Your task to perform on an android device: Clear all items from cart on newegg. Image 0: 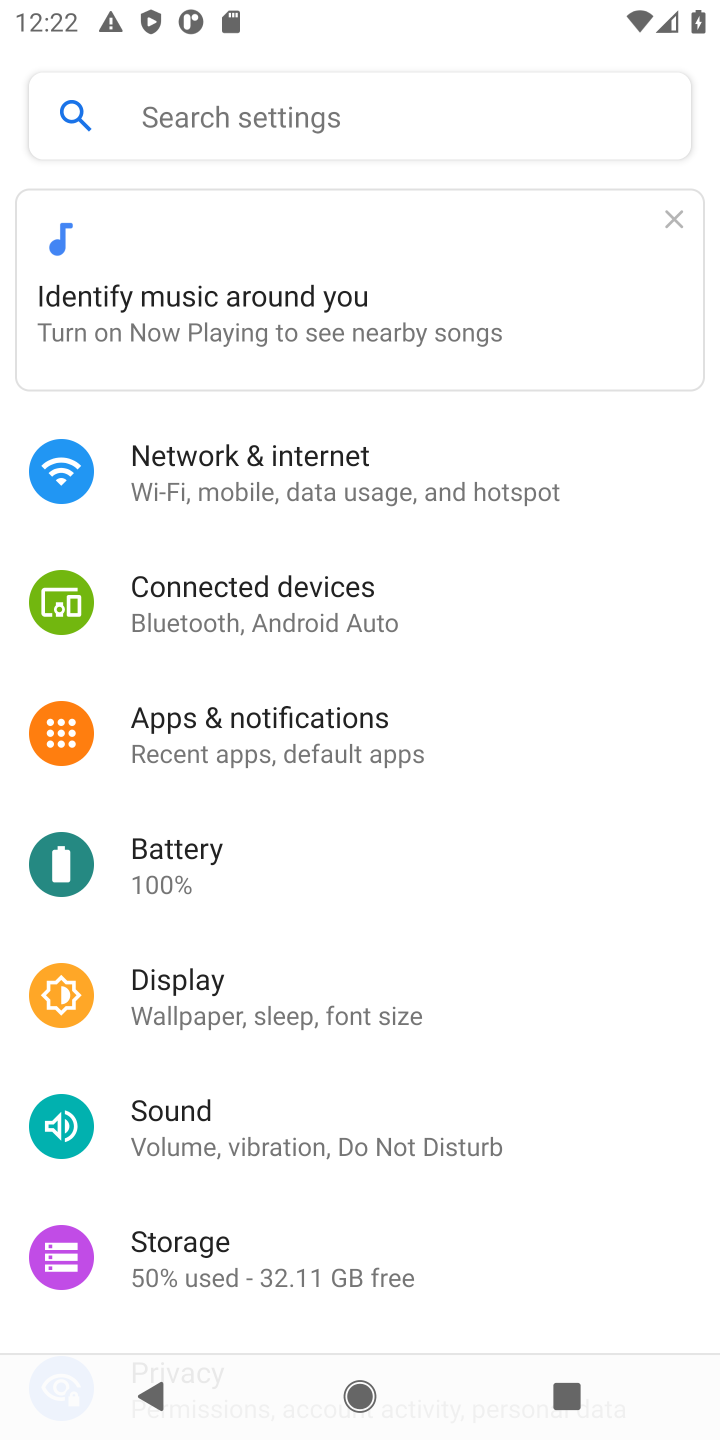
Step 0: press home button
Your task to perform on an android device: Clear all items from cart on newegg. Image 1: 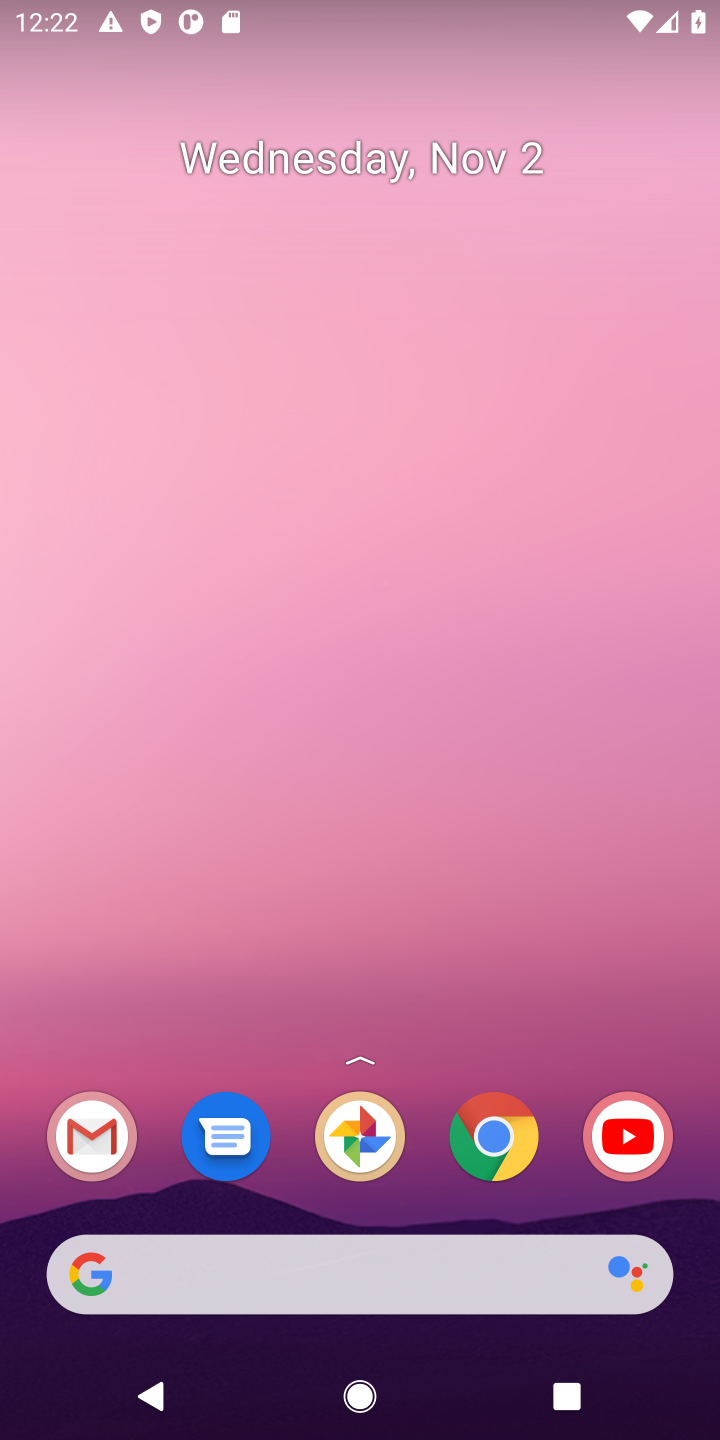
Step 1: click (491, 1149)
Your task to perform on an android device: Clear all items from cart on newegg. Image 2: 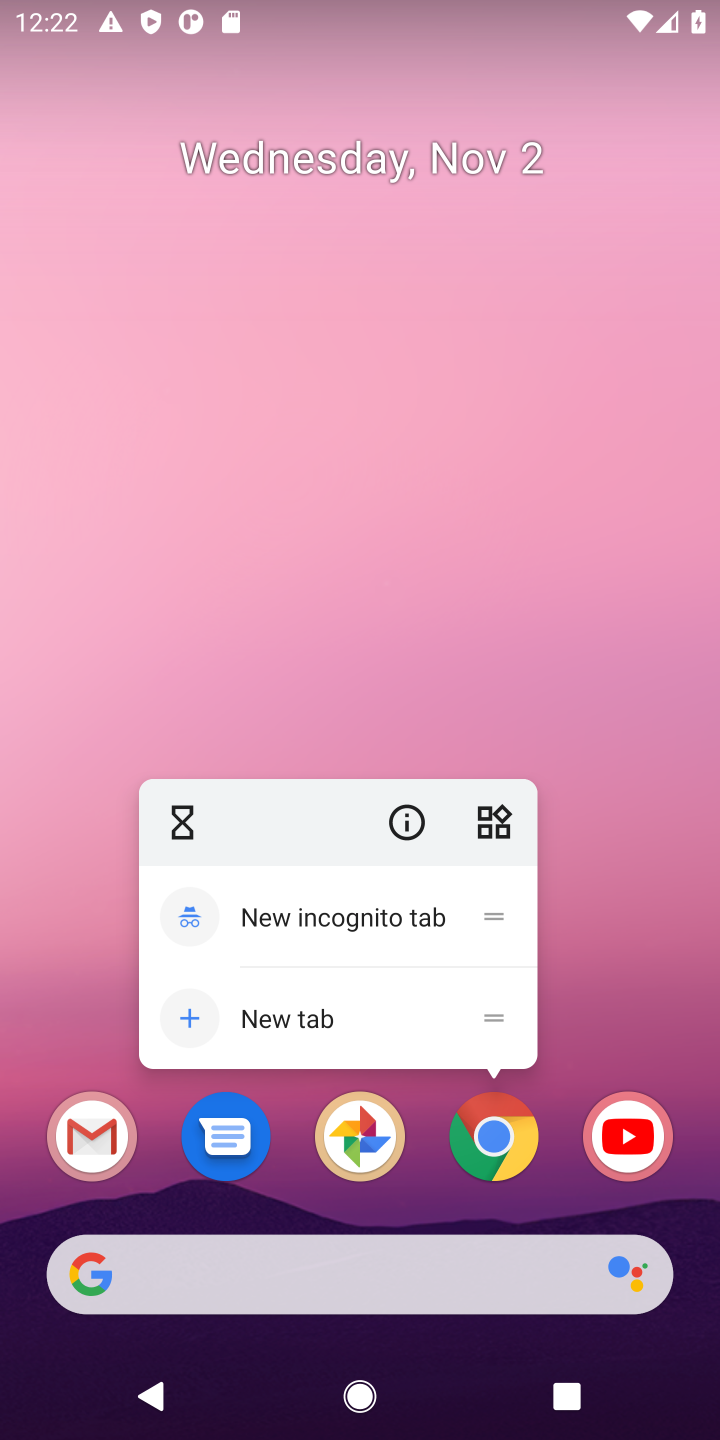
Step 2: click (493, 1137)
Your task to perform on an android device: Clear all items from cart on newegg. Image 3: 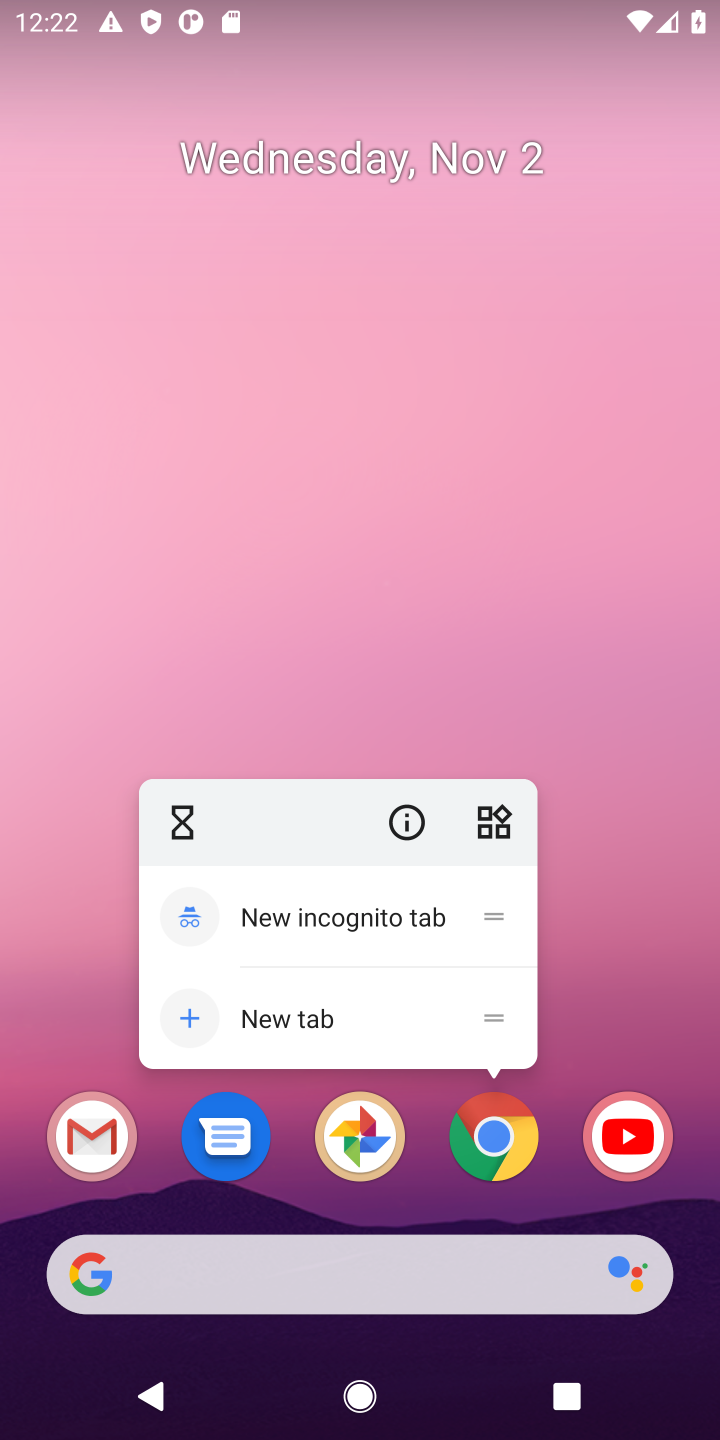
Step 3: click (502, 1155)
Your task to perform on an android device: Clear all items from cart on newegg. Image 4: 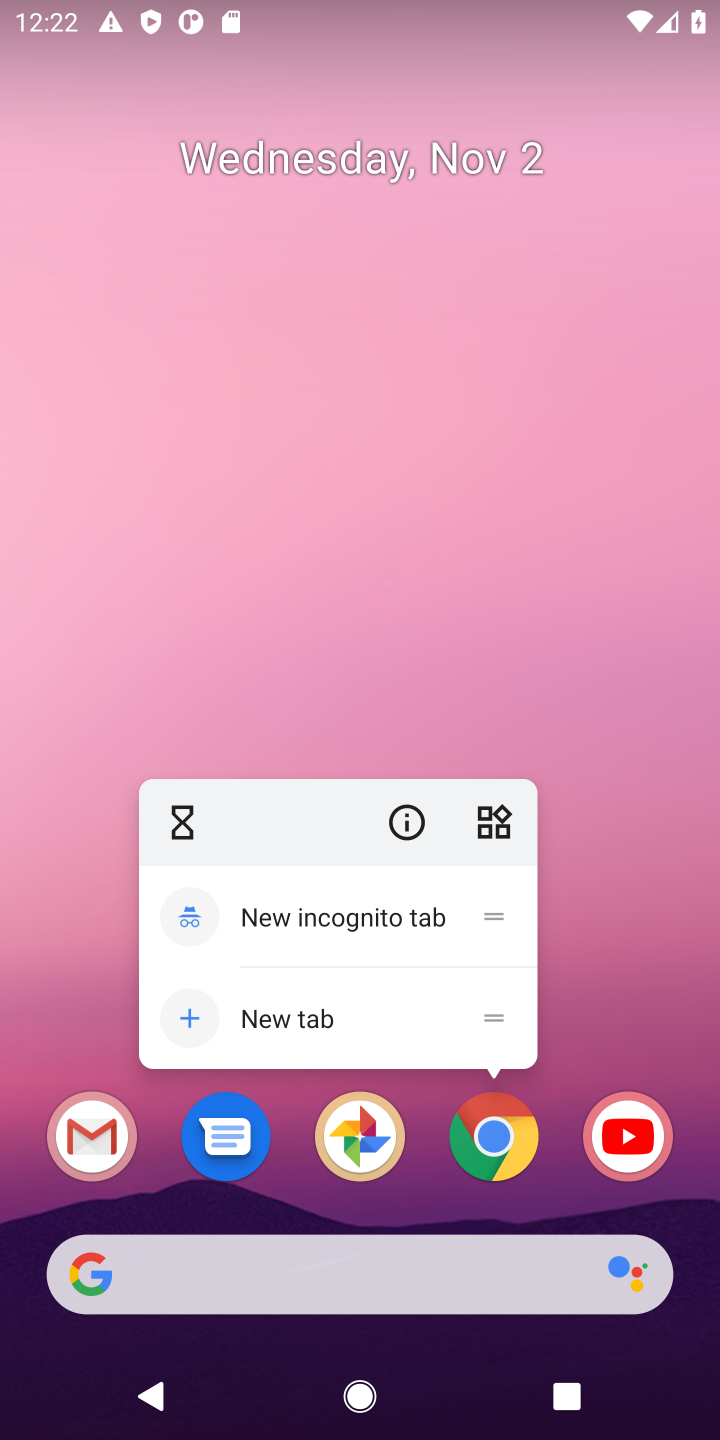
Step 4: click (502, 1163)
Your task to perform on an android device: Clear all items from cart on newegg. Image 5: 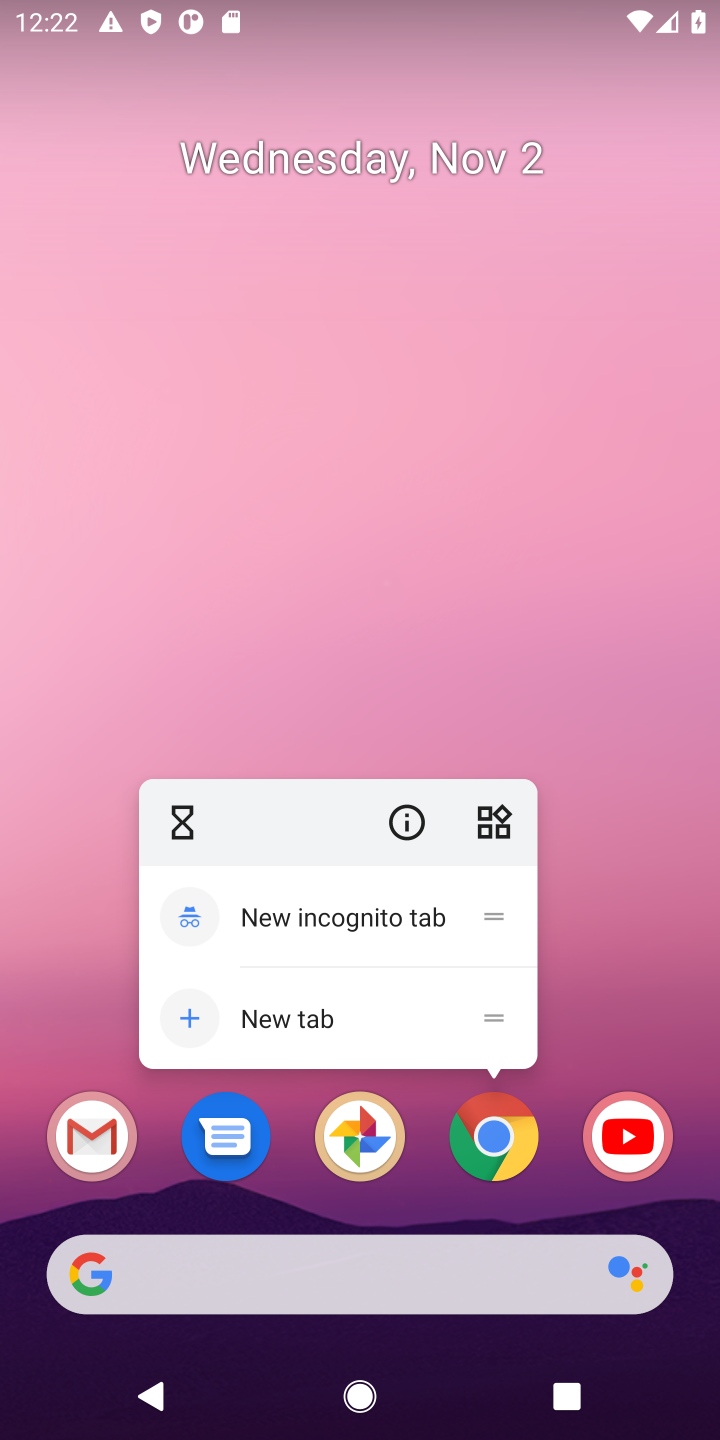
Step 5: click (489, 1134)
Your task to perform on an android device: Clear all items from cart on newegg. Image 6: 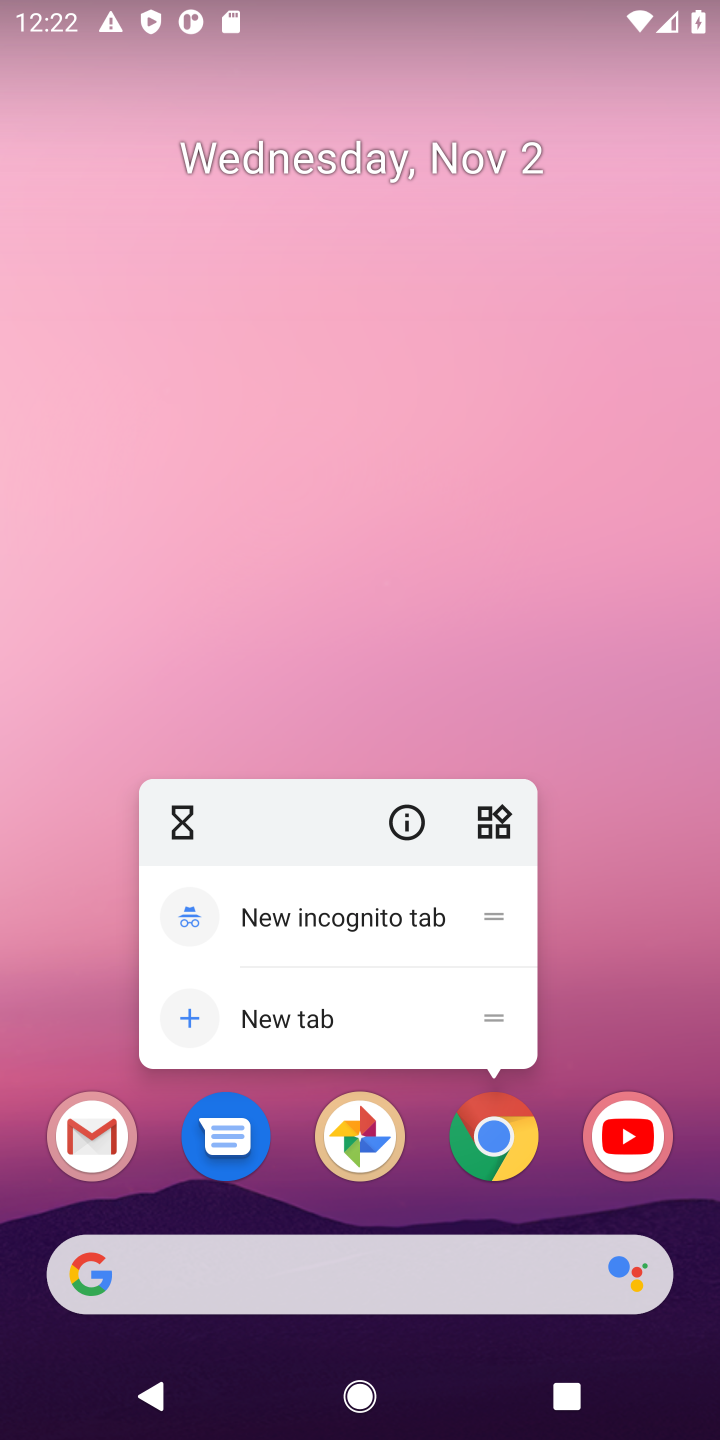
Step 6: click (491, 1141)
Your task to perform on an android device: Clear all items from cart on newegg. Image 7: 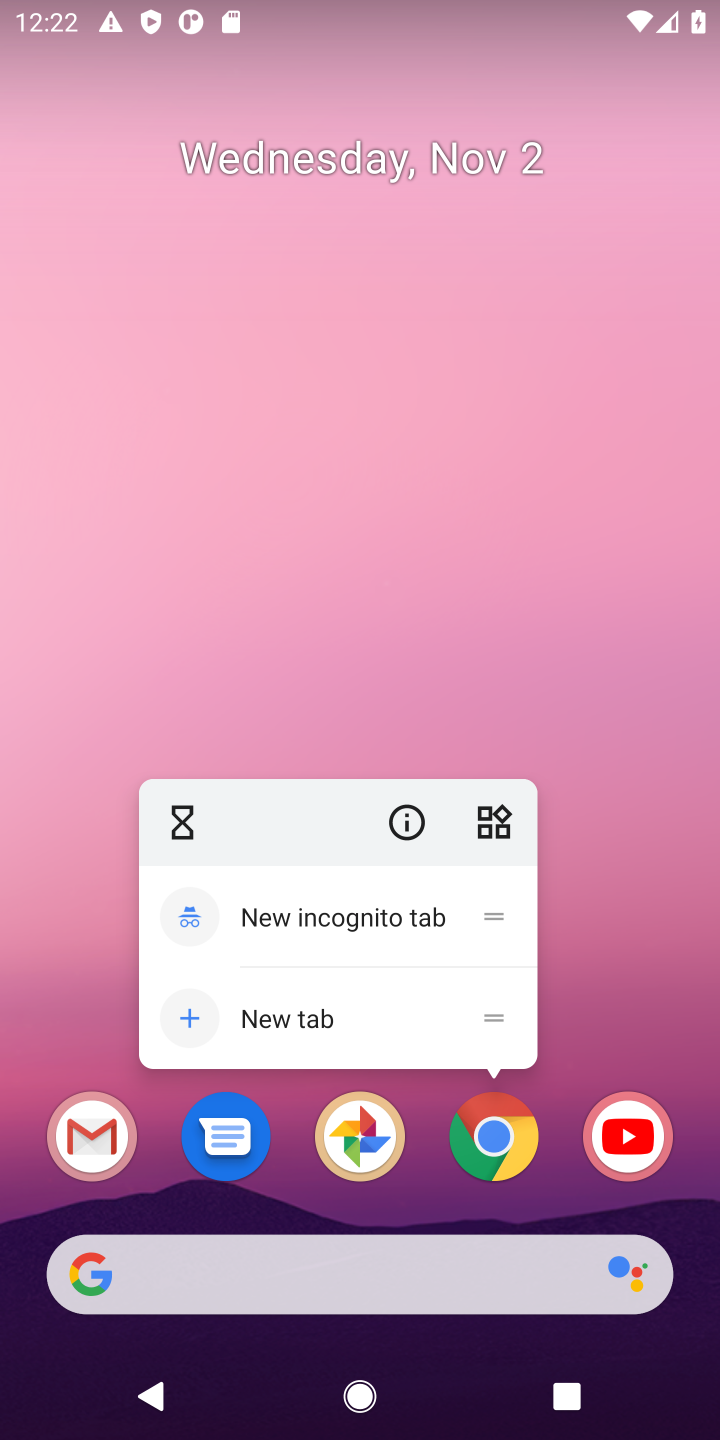
Step 7: click (515, 1149)
Your task to perform on an android device: Clear all items from cart on newegg. Image 8: 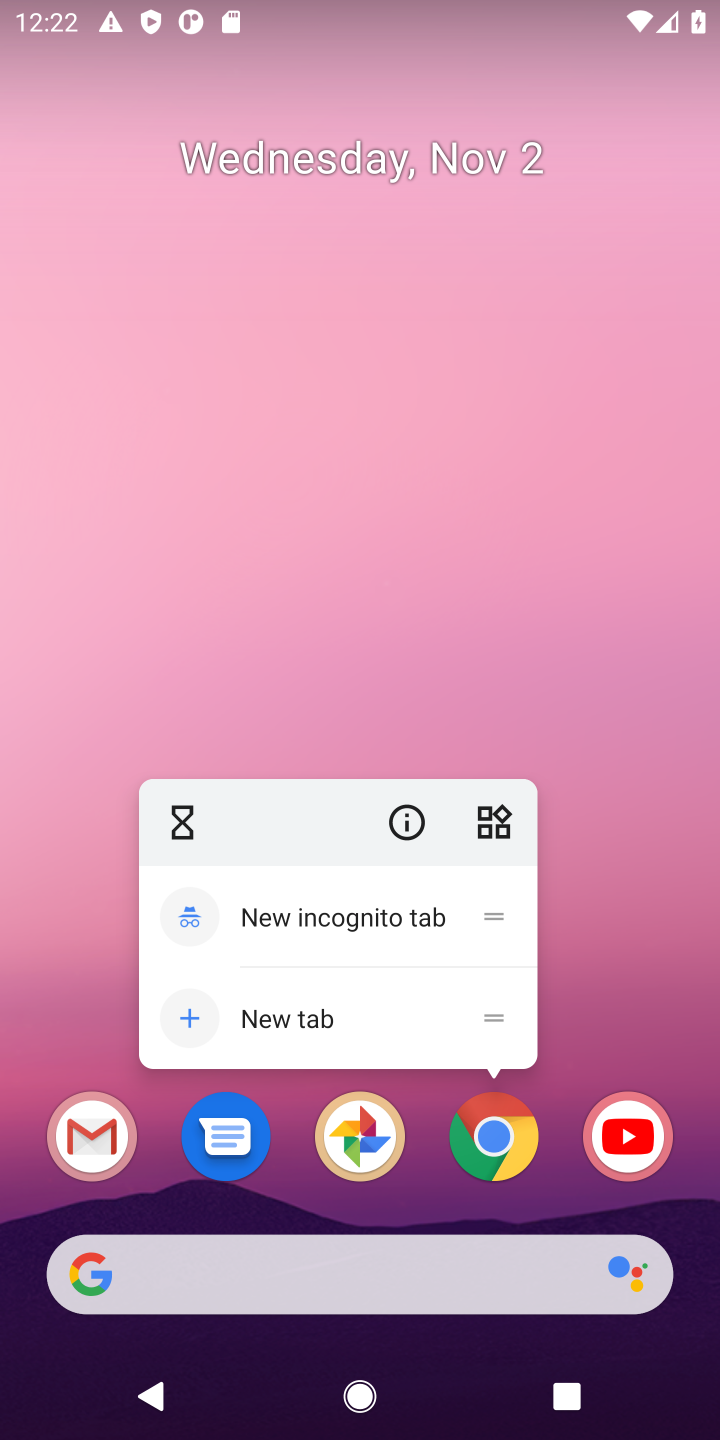
Step 8: click (504, 1137)
Your task to perform on an android device: Clear all items from cart on newegg. Image 9: 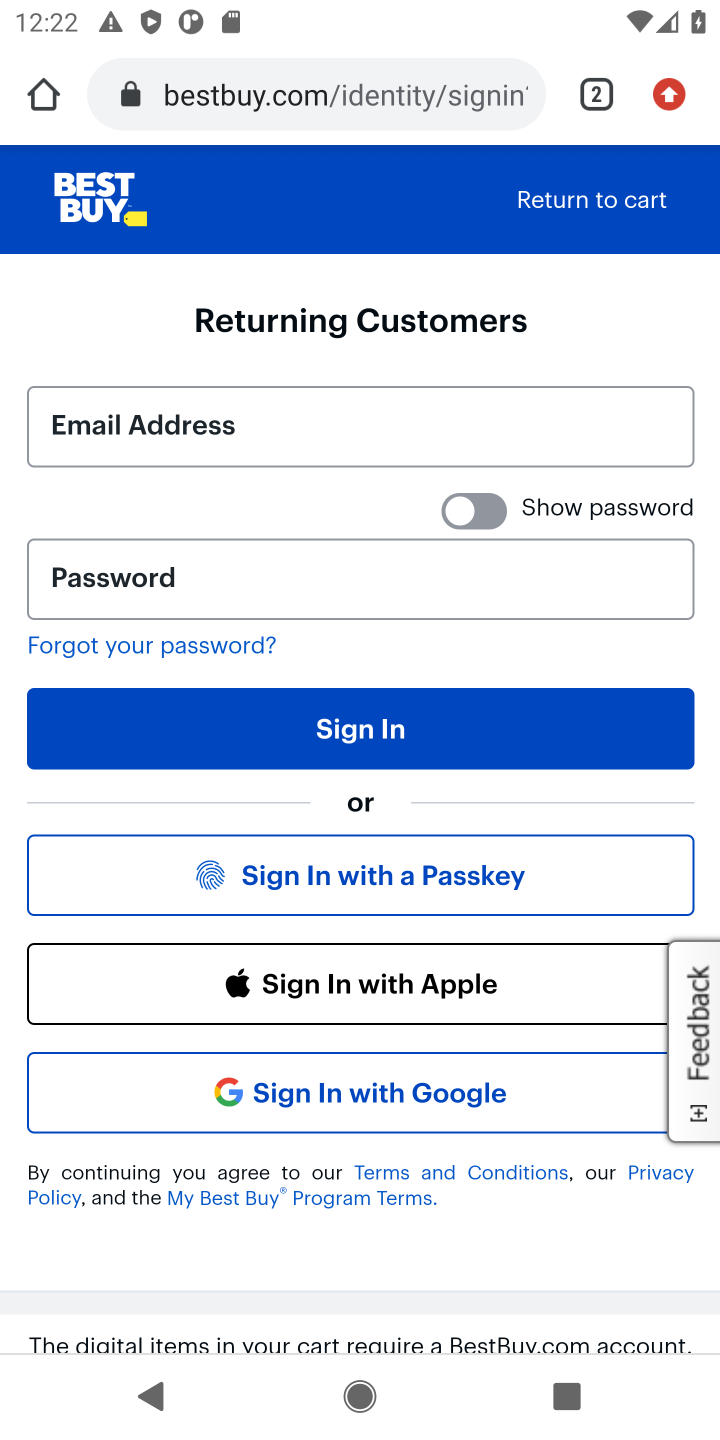
Step 9: click (414, 37)
Your task to perform on an android device: Clear all items from cart on newegg. Image 10: 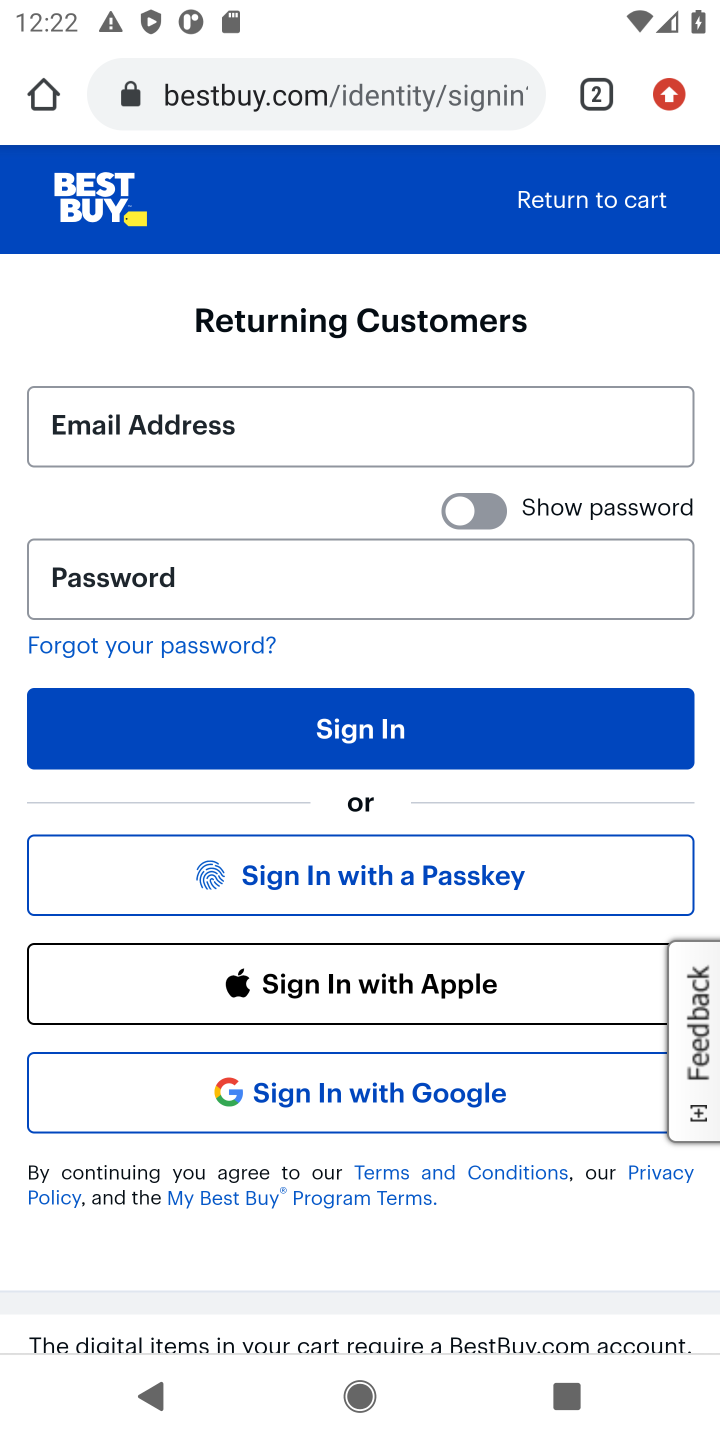
Step 10: click (374, 125)
Your task to perform on an android device: Clear all items from cart on newegg. Image 11: 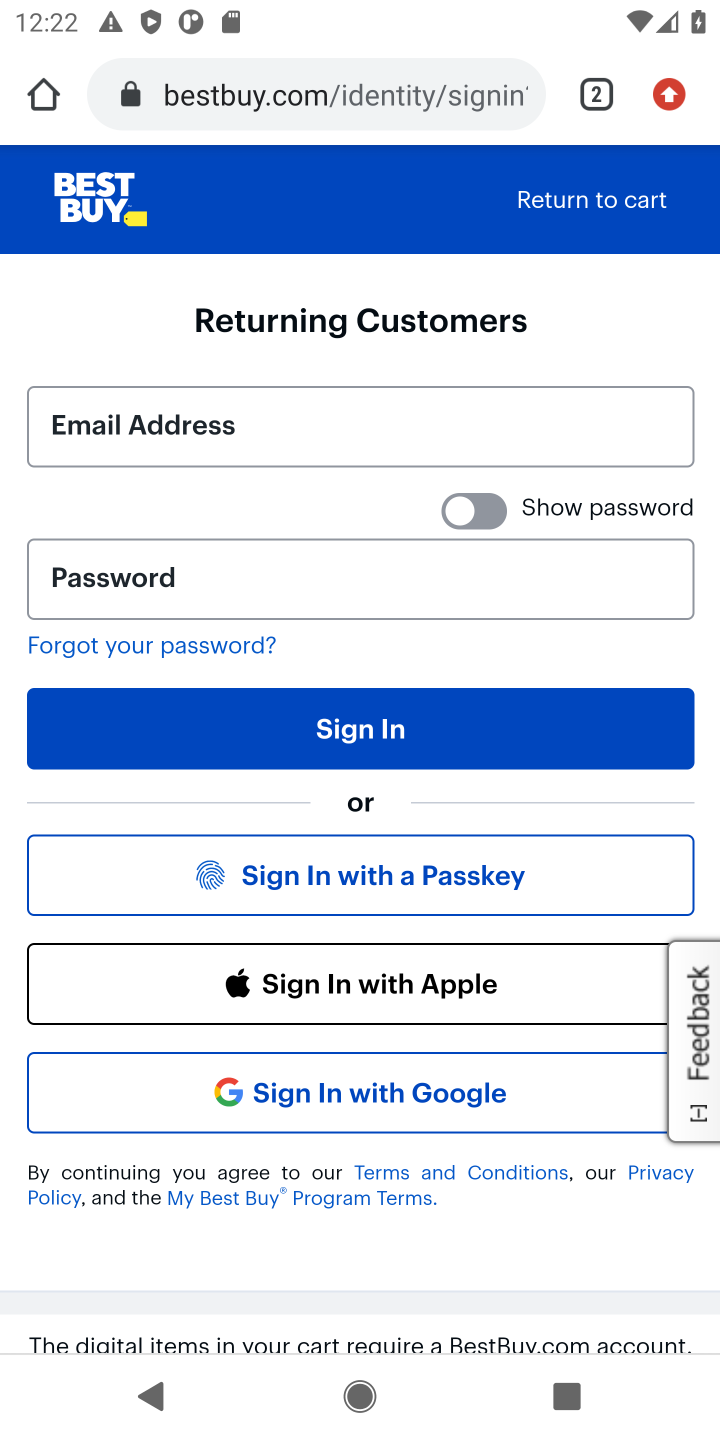
Step 11: click (269, 80)
Your task to perform on an android device: Clear all items from cart on newegg. Image 12: 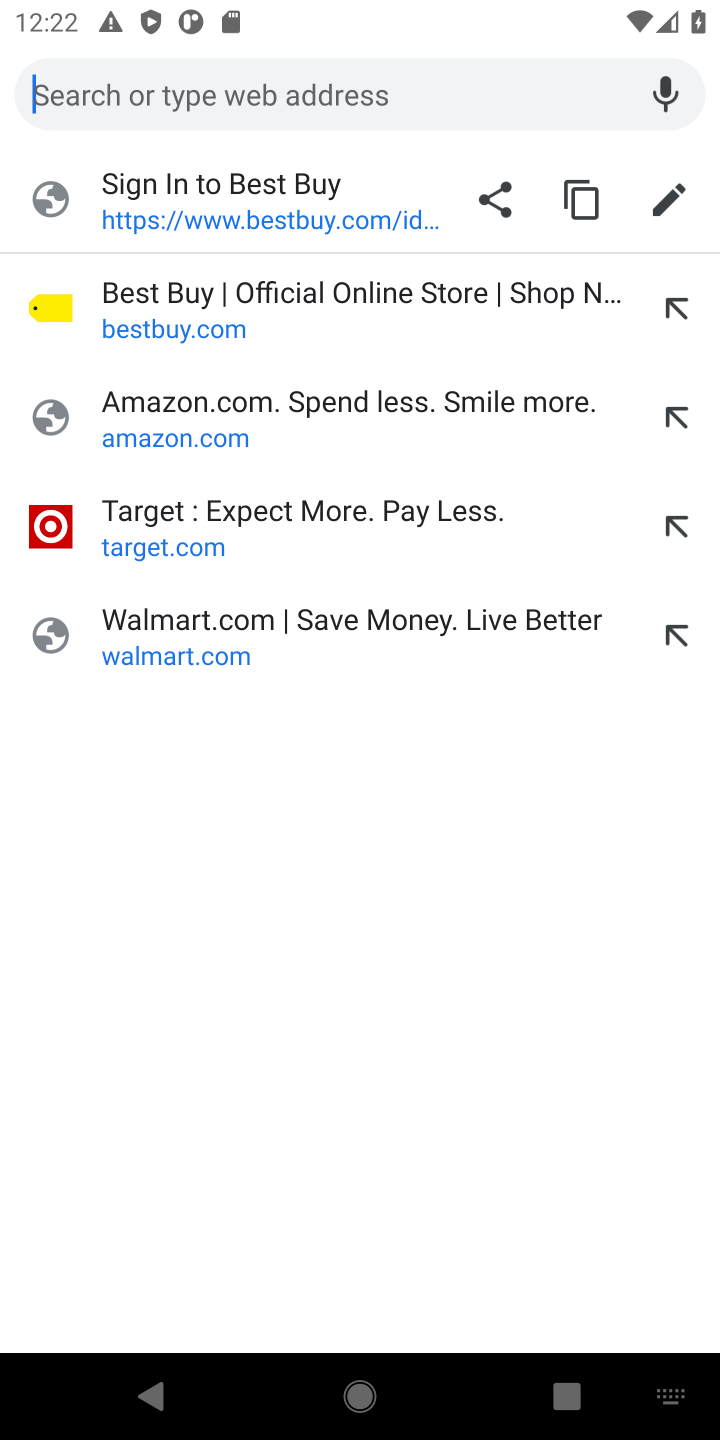
Step 12: type " newegg"
Your task to perform on an android device: Clear all items from cart on newegg. Image 13: 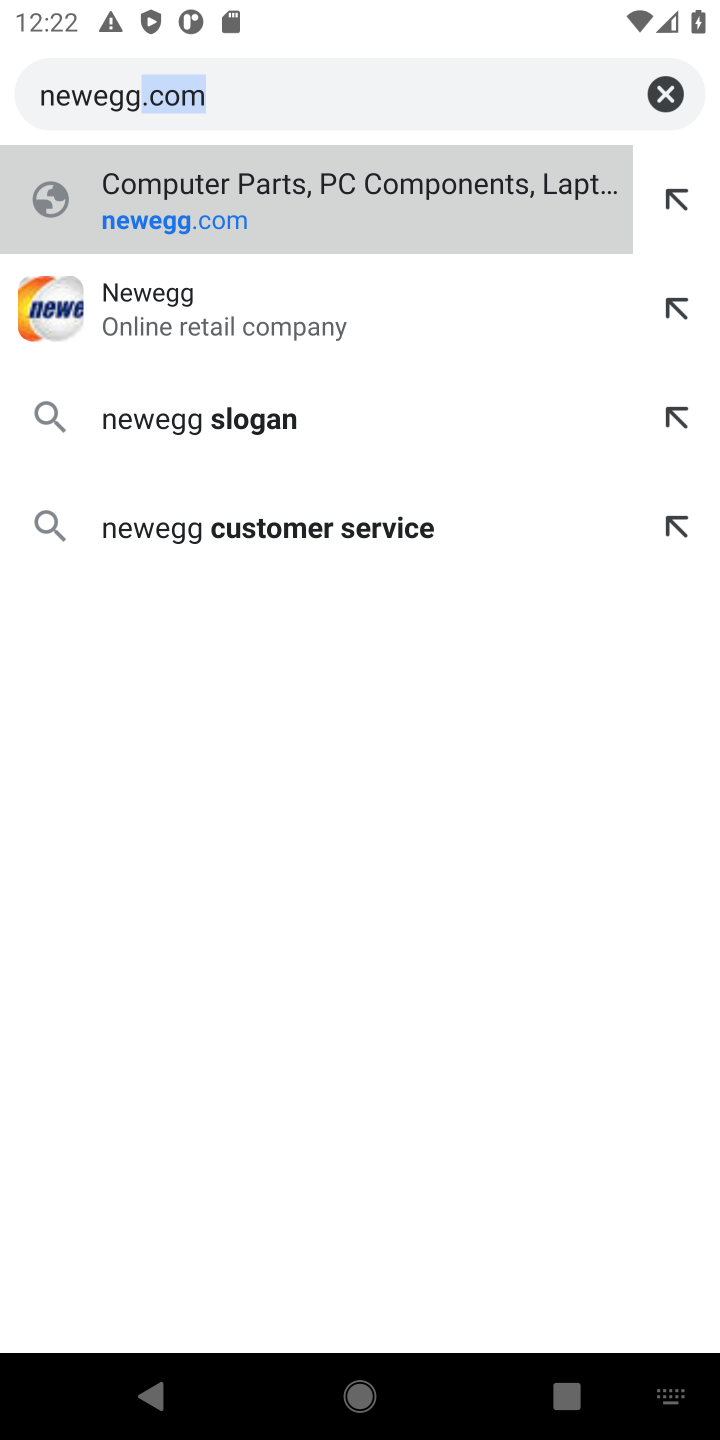
Step 13: click (287, 232)
Your task to perform on an android device: Clear all items from cart on newegg. Image 14: 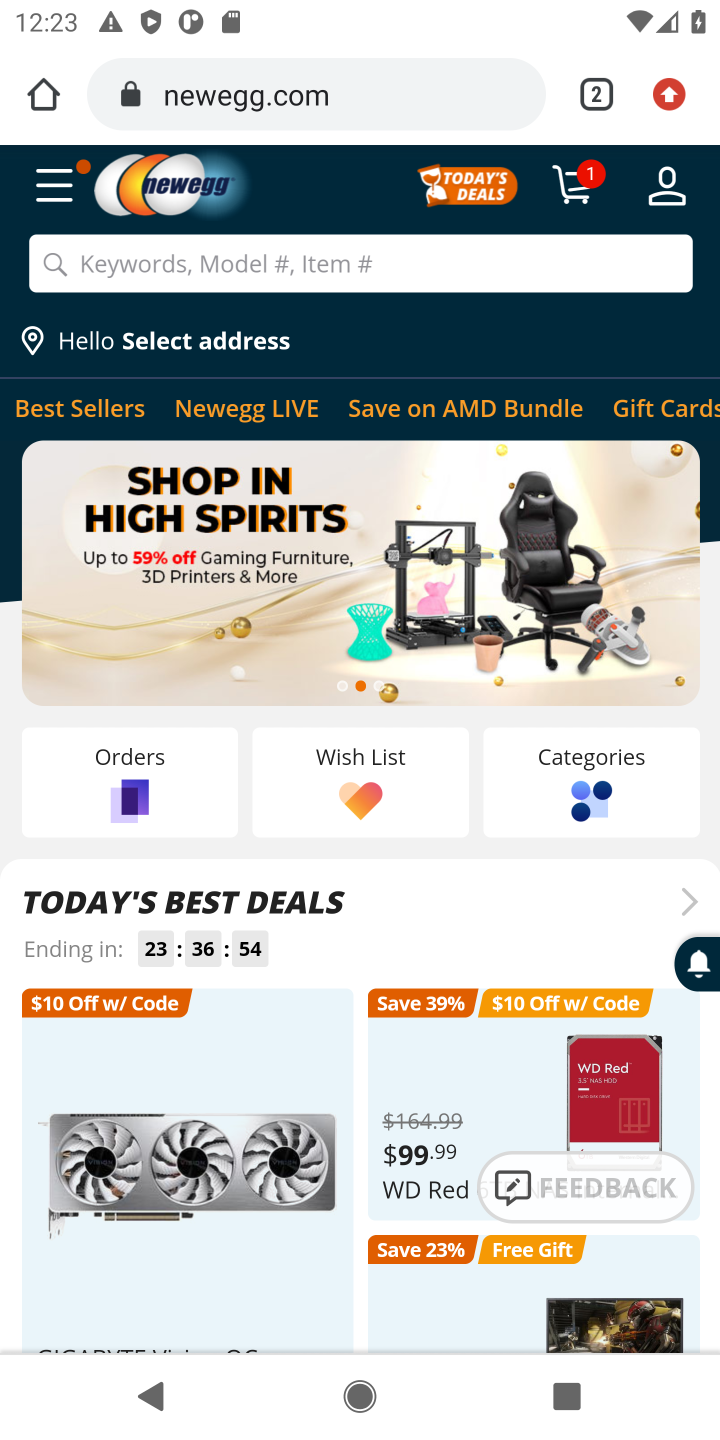
Step 14: click (565, 185)
Your task to perform on an android device: Clear all items from cart on newegg. Image 15: 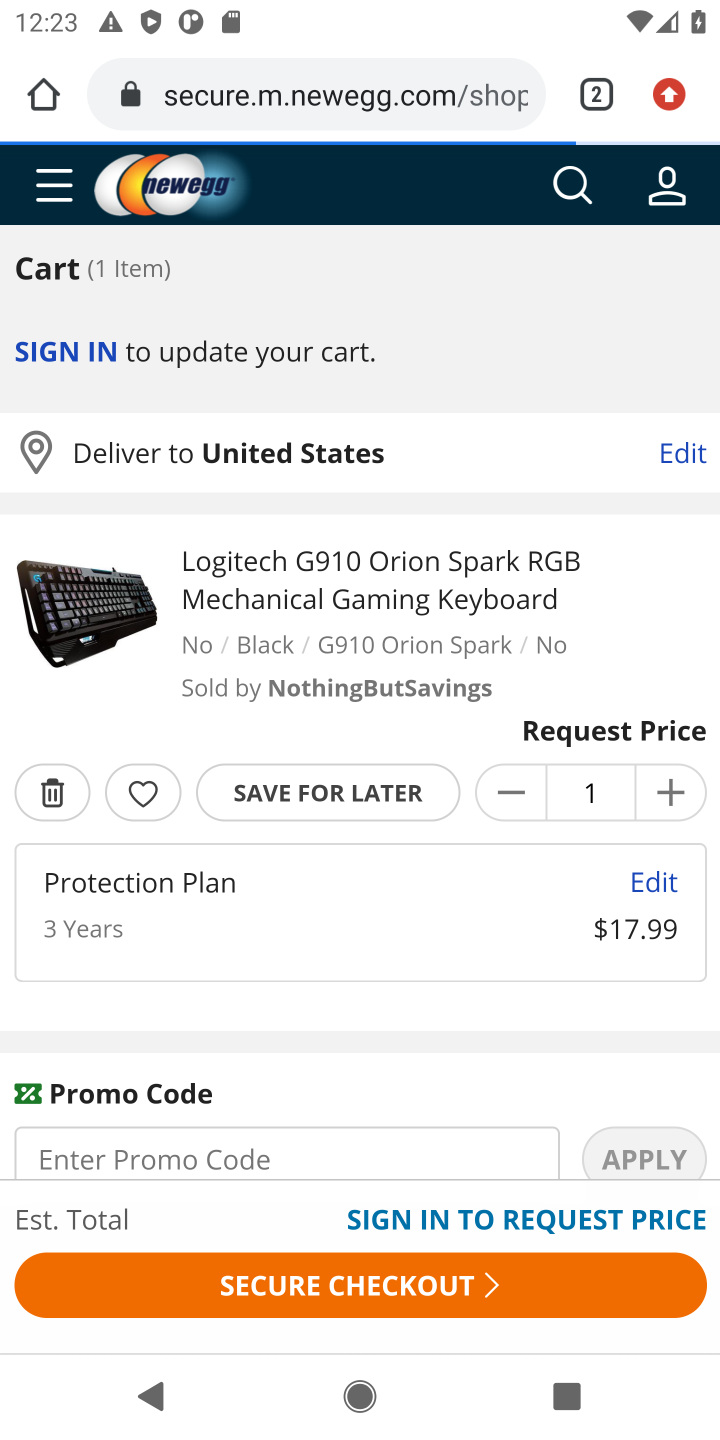
Step 15: click (35, 798)
Your task to perform on an android device: Clear all items from cart on newegg. Image 16: 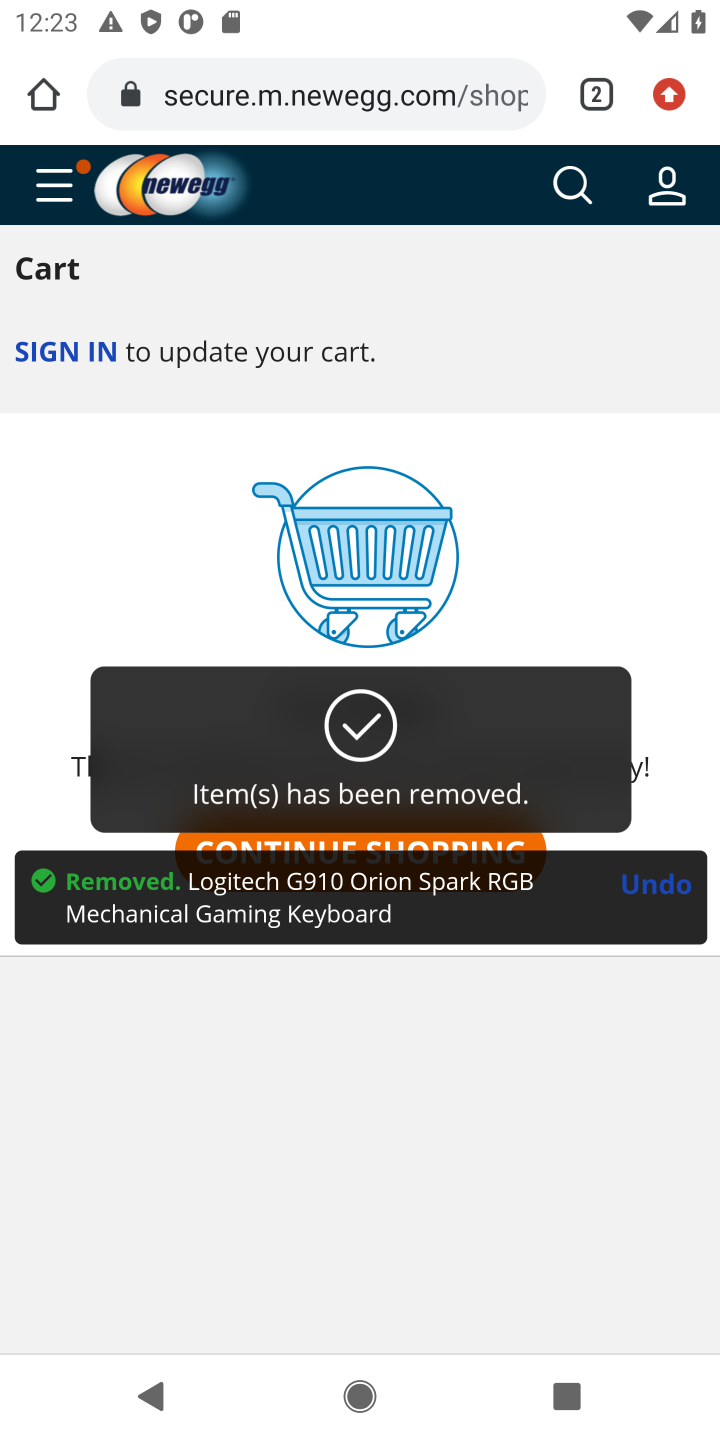
Step 16: click (306, 869)
Your task to perform on an android device: Clear all items from cart on newegg. Image 17: 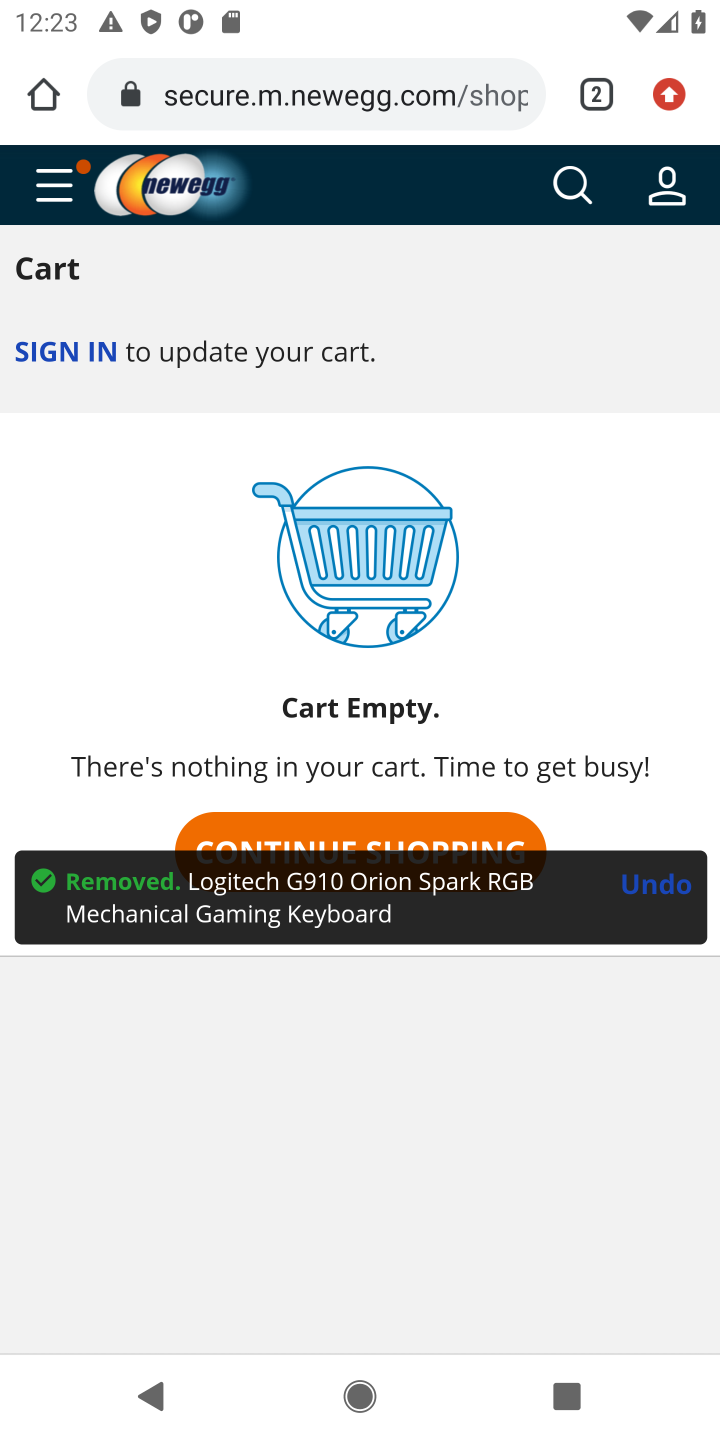
Step 17: click (306, 869)
Your task to perform on an android device: Clear all items from cart on newegg. Image 18: 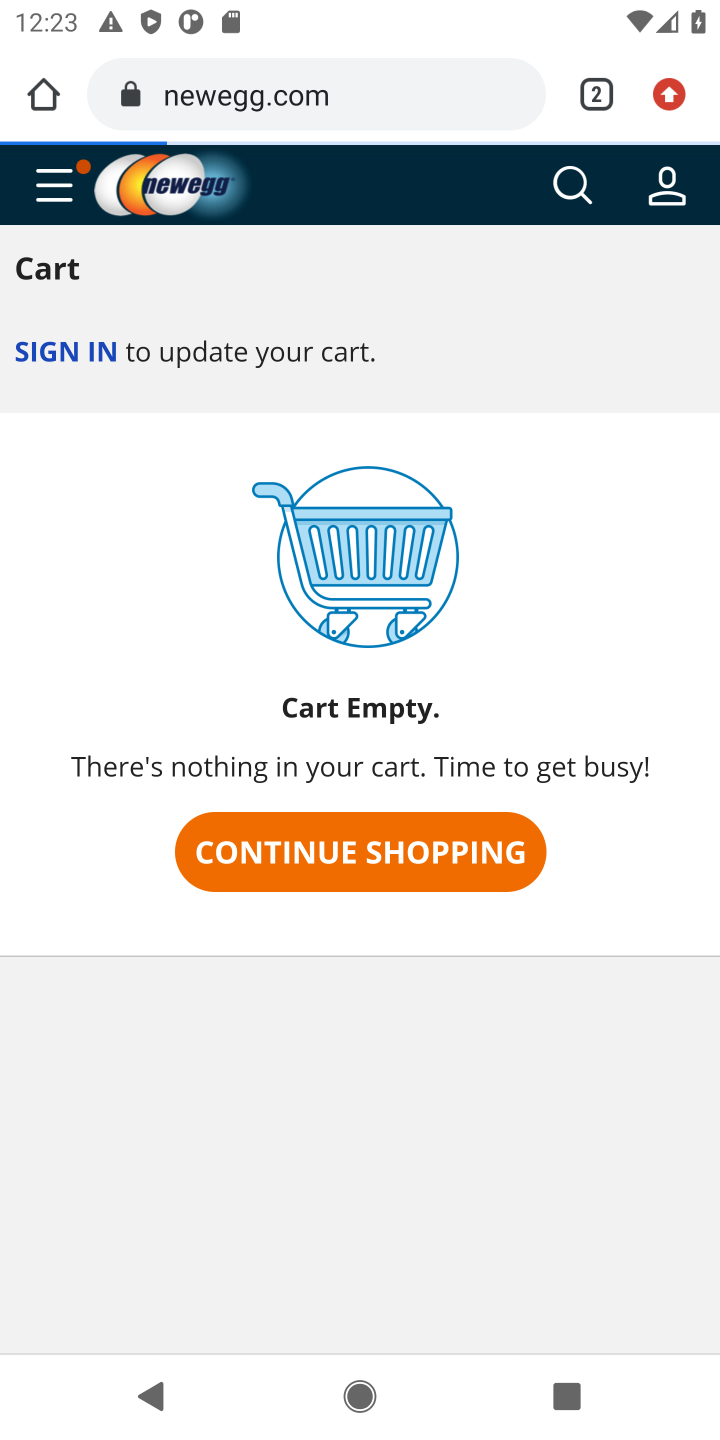
Step 18: click (304, 850)
Your task to perform on an android device: Clear all items from cart on newegg. Image 19: 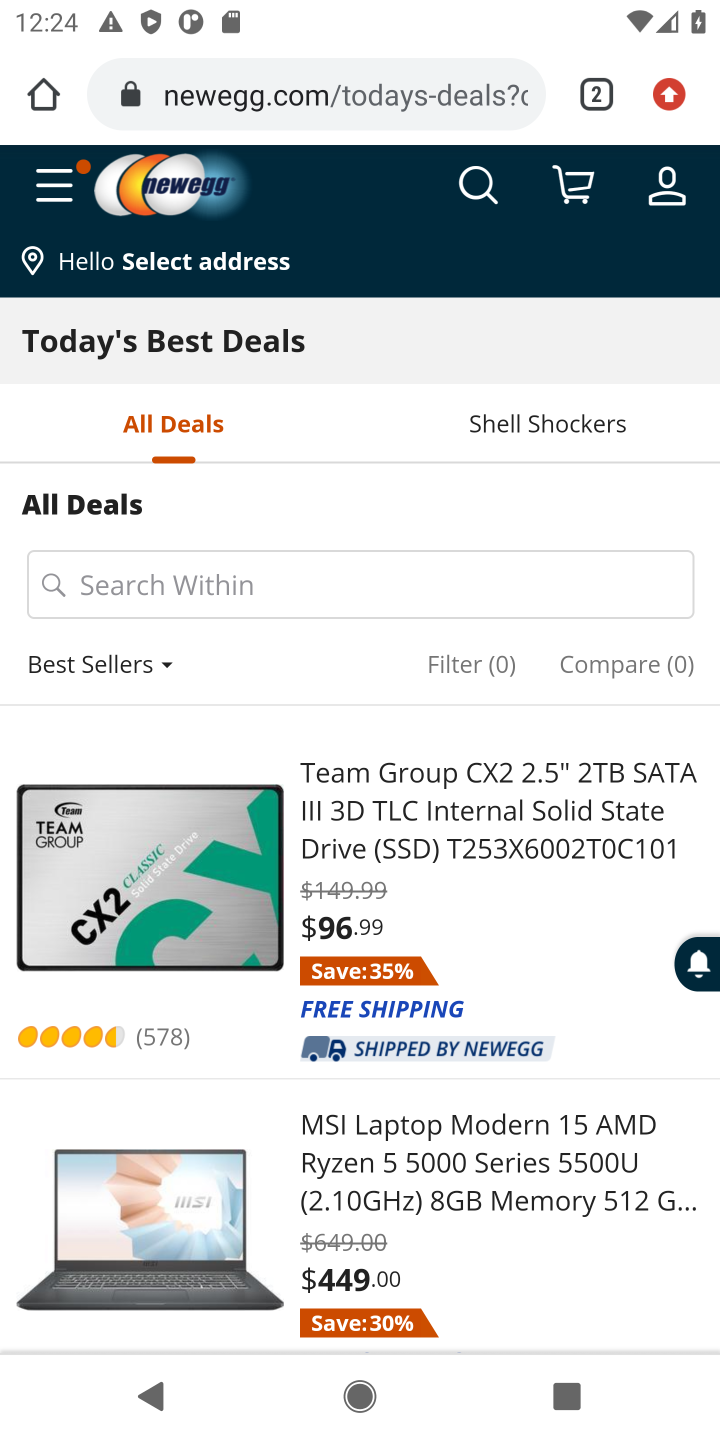
Step 19: task complete